Your task to perform on an android device: change alarm snooze length Image 0: 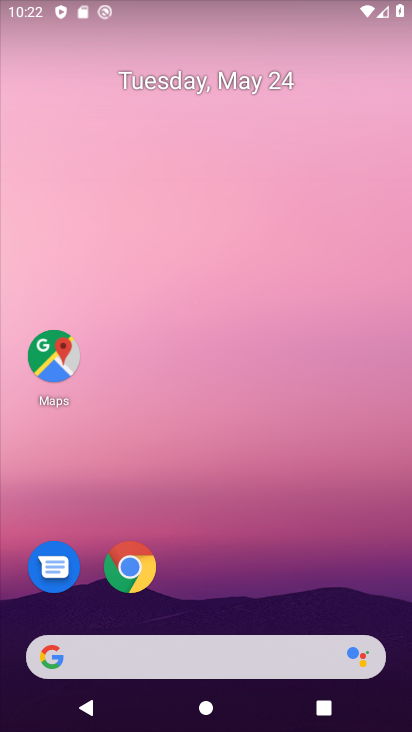
Step 0: press home button
Your task to perform on an android device: change alarm snooze length Image 1: 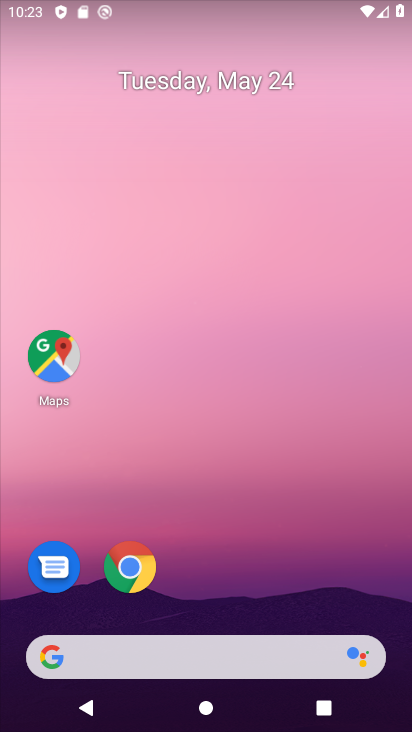
Step 1: drag from (297, 695) to (234, 190)
Your task to perform on an android device: change alarm snooze length Image 2: 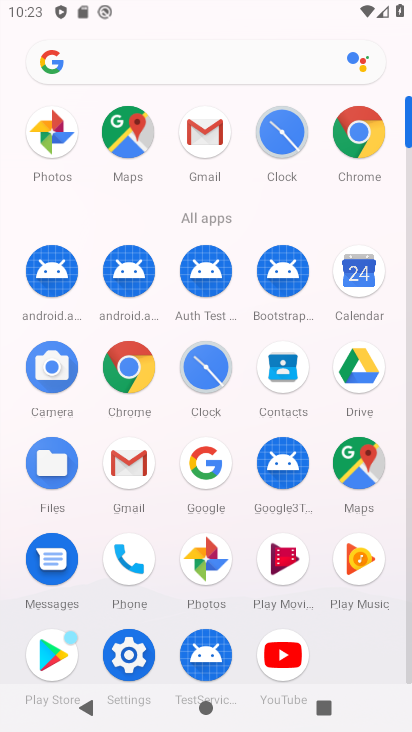
Step 2: click (287, 116)
Your task to perform on an android device: change alarm snooze length Image 3: 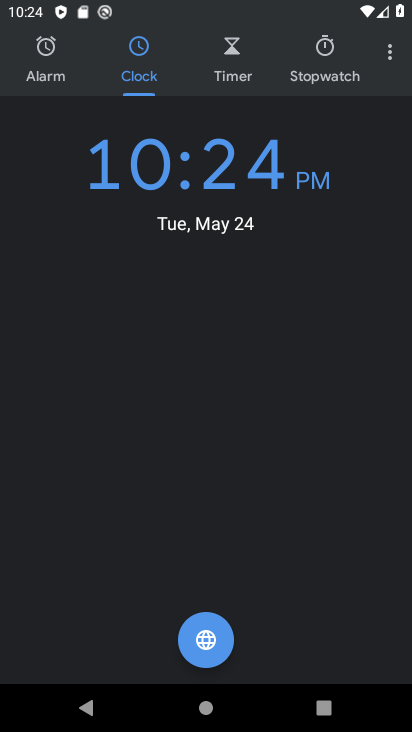
Step 3: click (386, 55)
Your task to perform on an android device: change alarm snooze length Image 4: 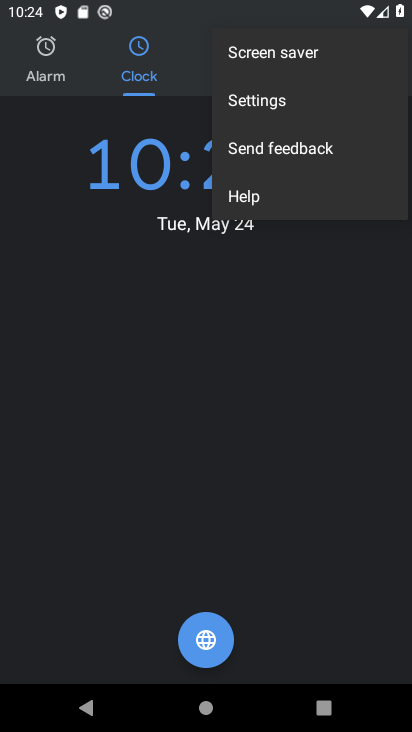
Step 4: click (284, 110)
Your task to perform on an android device: change alarm snooze length Image 5: 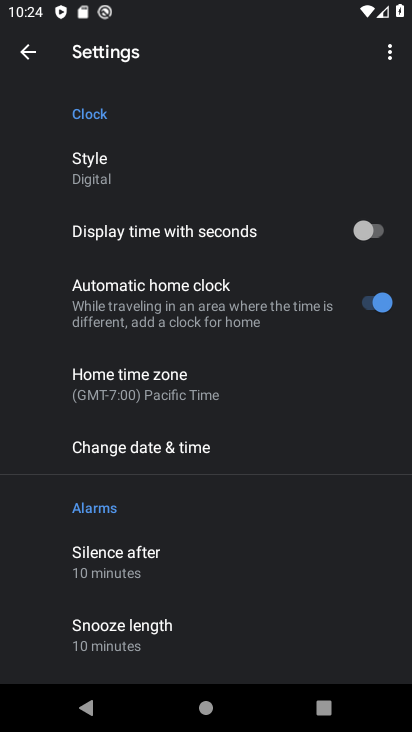
Step 5: drag from (170, 555) to (174, 485)
Your task to perform on an android device: change alarm snooze length Image 6: 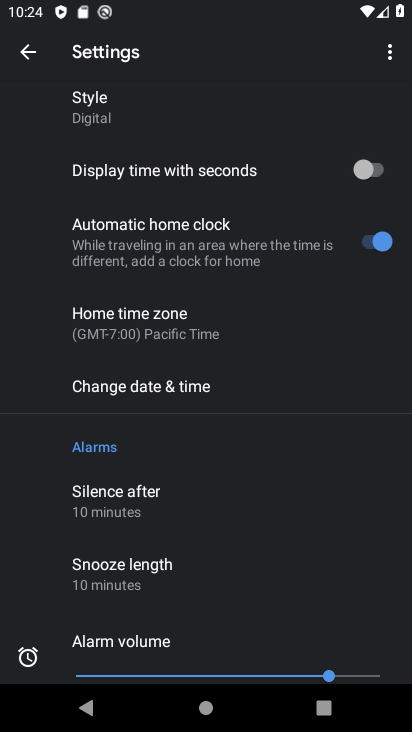
Step 6: click (163, 559)
Your task to perform on an android device: change alarm snooze length Image 7: 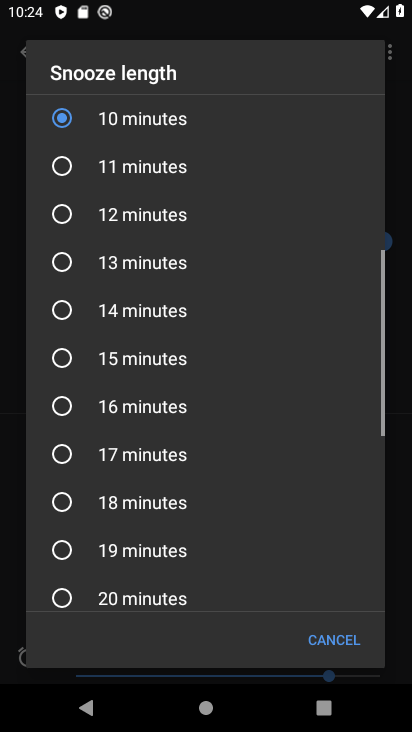
Step 7: click (151, 365)
Your task to perform on an android device: change alarm snooze length Image 8: 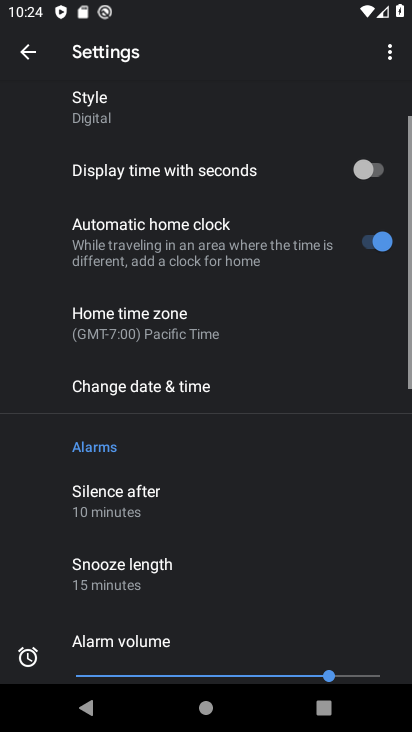
Step 8: task complete